Your task to perform on an android device: What's the weather going to be this weekend? Image 0: 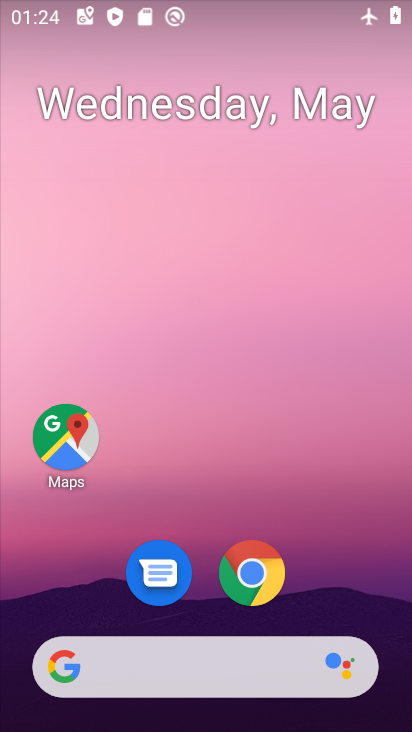
Step 0: click (243, 570)
Your task to perform on an android device: What's the weather going to be this weekend? Image 1: 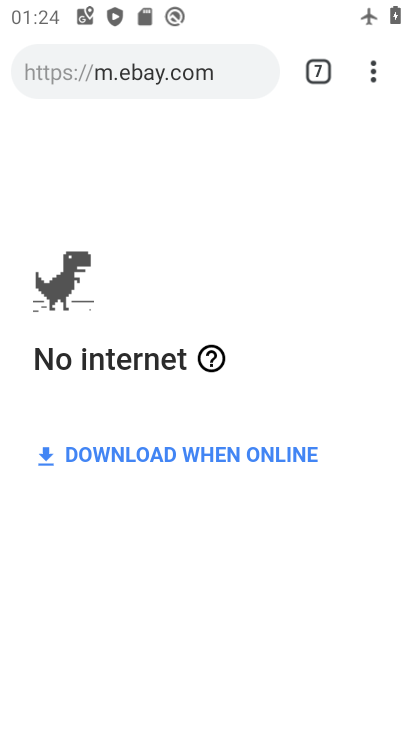
Step 1: click (368, 63)
Your task to perform on an android device: What's the weather going to be this weekend? Image 2: 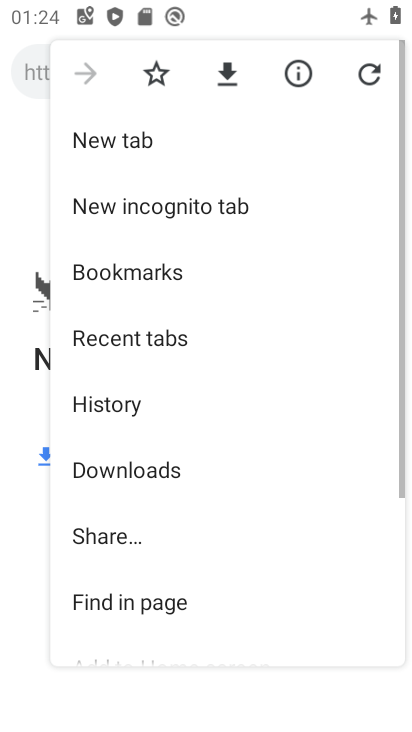
Step 2: click (131, 129)
Your task to perform on an android device: What's the weather going to be this weekend? Image 3: 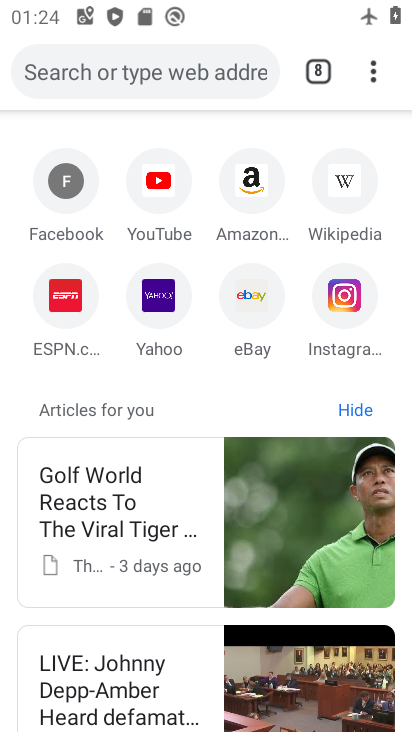
Step 3: click (197, 74)
Your task to perform on an android device: What's the weather going to be this weekend? Image 4: 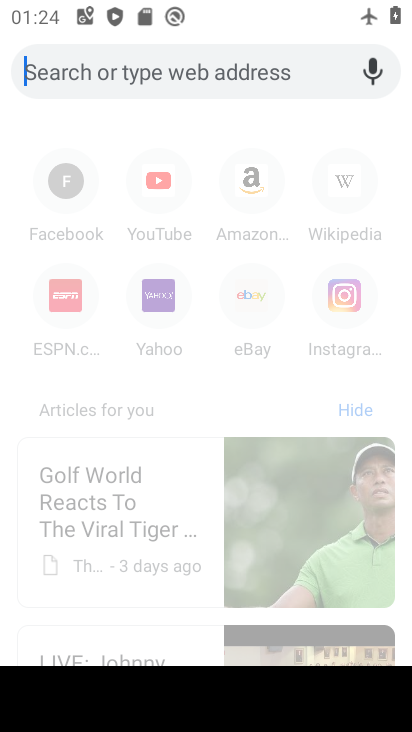
Step 4: type "What's the weather going to be this weekend?"
Your task to perform on an android device: What's the weather going to be this weekend? Image 5: 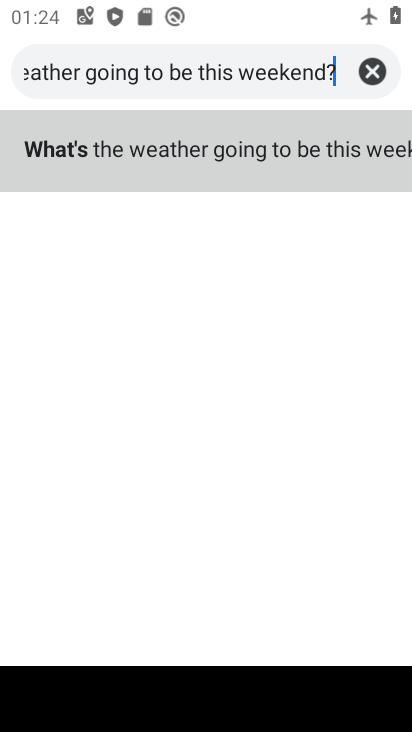
Step 5: click (229, 163)
Your task to perform on an android device: What's the weather going to be this weekend? Image 6: 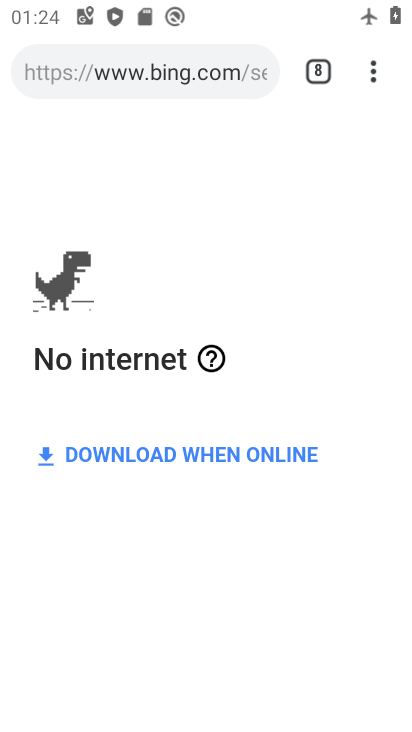
Step 6: task complete